Your task to perform on an android device: What's on my calendar today? Image 0: 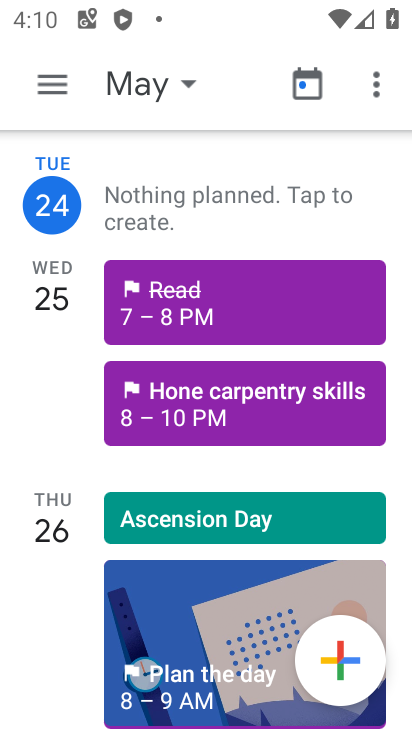
Step 0: click (189, 81)
Your task to perform on an android device: What's on my calendar today? Image 1: 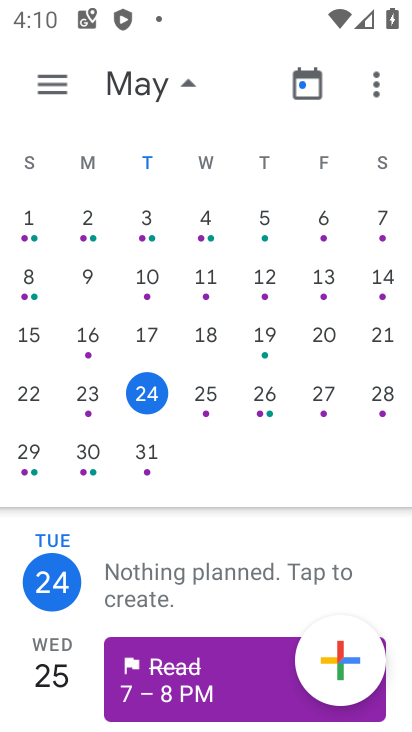
Step 1: click (151, 388)
Your task to perform on an android device: What's on my calendar today? Image 2: 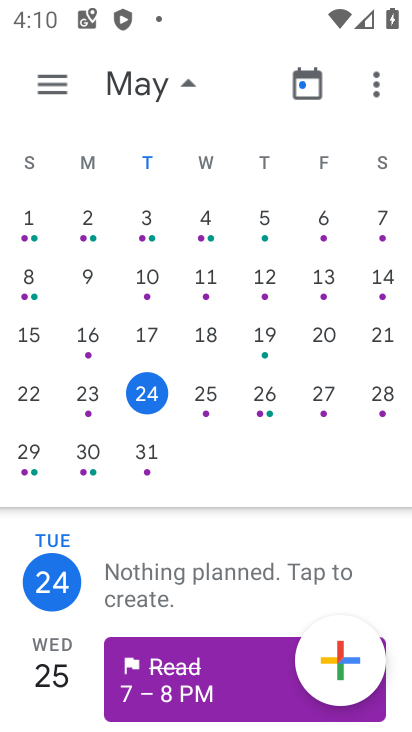
Step 2: click (185, 575)
Your task to perform on an android device: What's on my calendar today? Image 3: 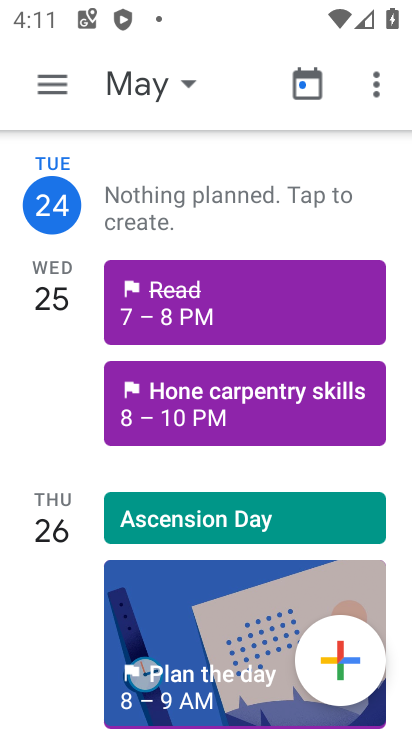
Step 3: click (187, 194)
Your task to perform on an android device: What's on my calendar today? Image 4: 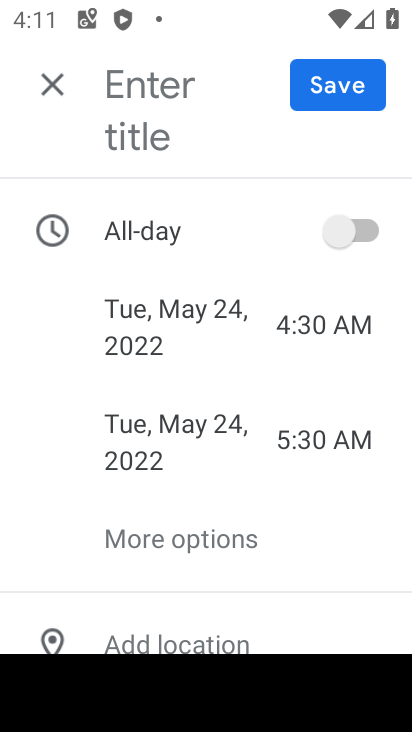
Step 4: task complete